Your task to perform on an android device: Open Google Chrome Image 0: 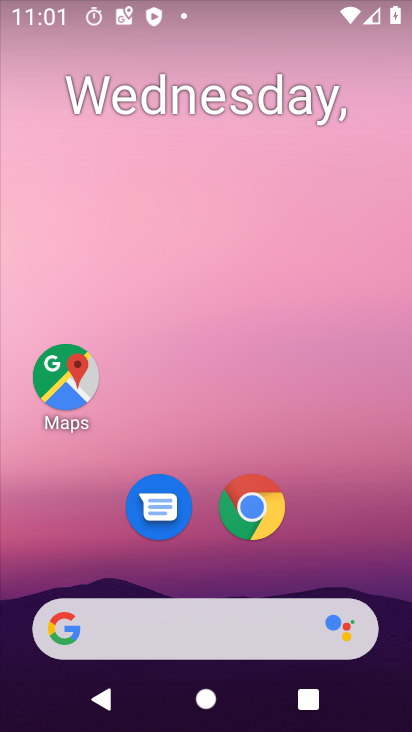
Step 0: click (249, 500)
Your task to perform on an android device: Open Google Chrome Image 1: 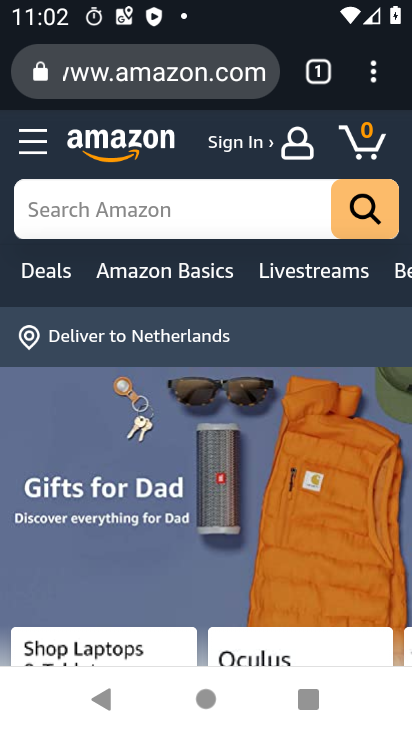
Step 1: task complete